Your task to perform on an android device: Show me popular games on the Play Store Image 0: 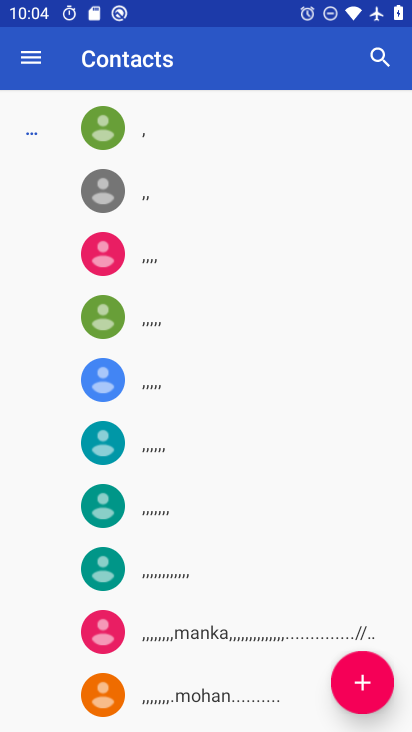
Step 0: press home button
Your task to perform on an android device: Show me popular games on the Play Store Image 1: 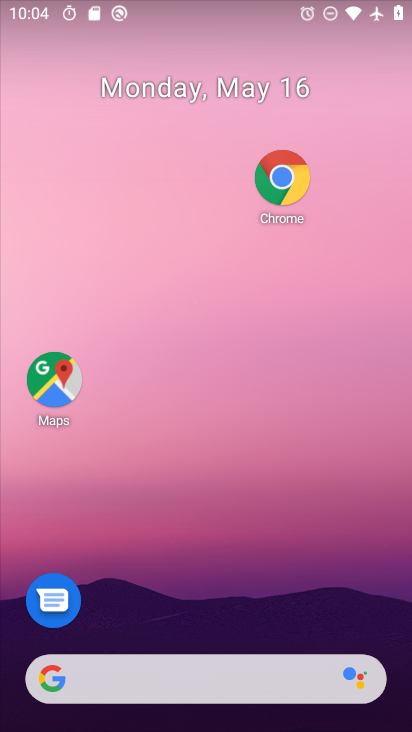
Step 1: drag from (177, 673) to (288, 50)
Your task to perform on an android device: Show me popular games on the Play Store Image 2: 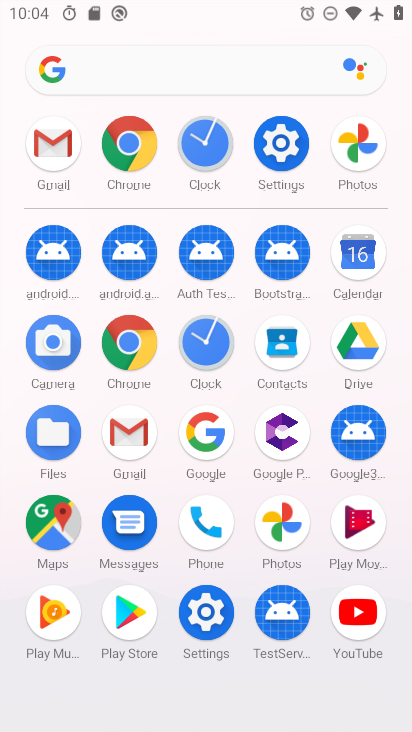
Step 2: click (120, 614)
Your task to perform on an android device: Show me popular games on the Play Store Image 3: 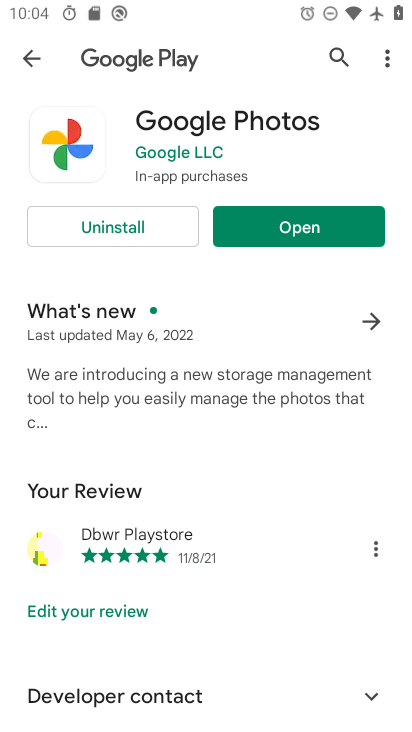
Step 3: click (35, 59)
Your task to perform on an android device: Show me popular games on the Play Store Image 4: 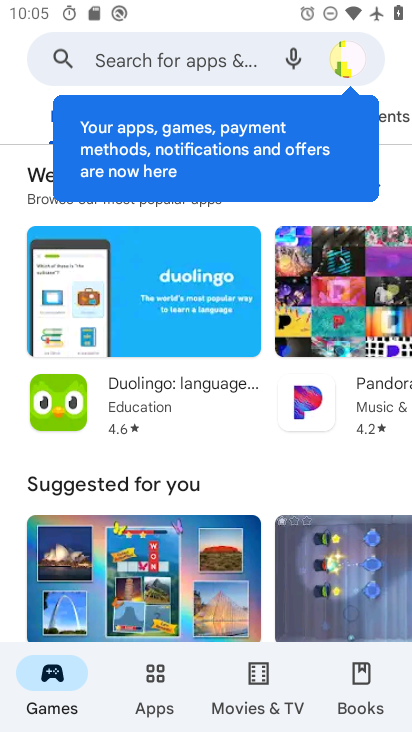
Step 4: drag from (146, 582) to (234, 211)
Your task to perform on an android device: Show me popular games on the Play Store Image 5: 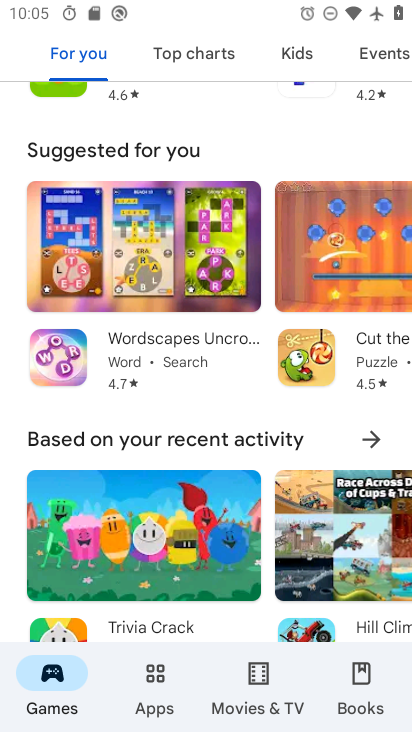
Step 5: drag from (187, 532) to (274, 141)
Your task to perform on an android device: Show me popular games on the Play Store Image 6: 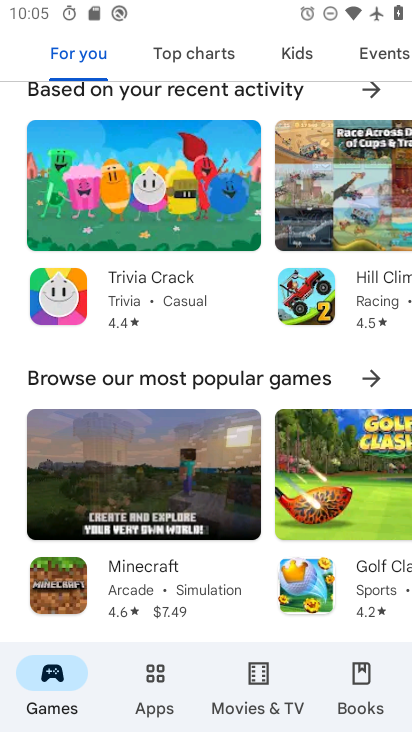
Step 6: click (199, 382)
Your task to perform on an android device: Show me popular games on the Play Store Image 7: 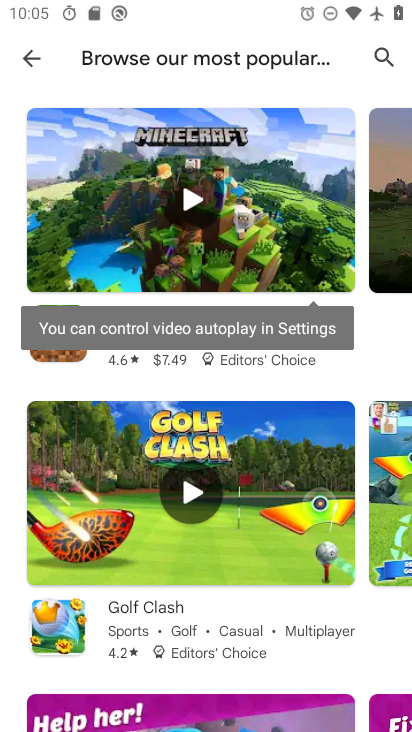
Step 7: task complete